Your task to perform on an android device: set default search engine in the chrome app Image 0: 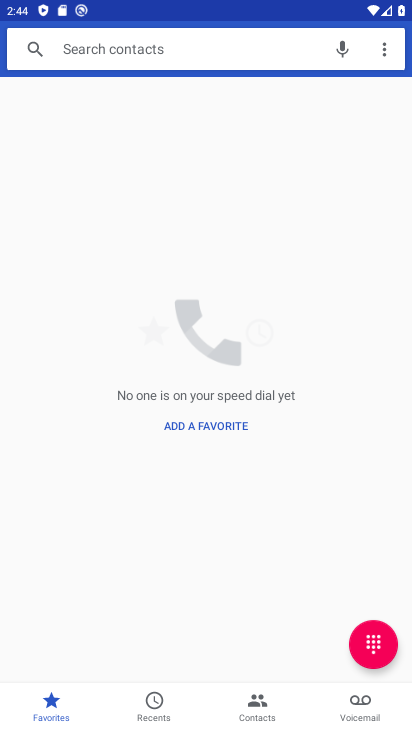
Step 0: drag from (276, 604) to (191, 77)
Your task to perform on an android device: set default search engine in the chrome app Image 1: 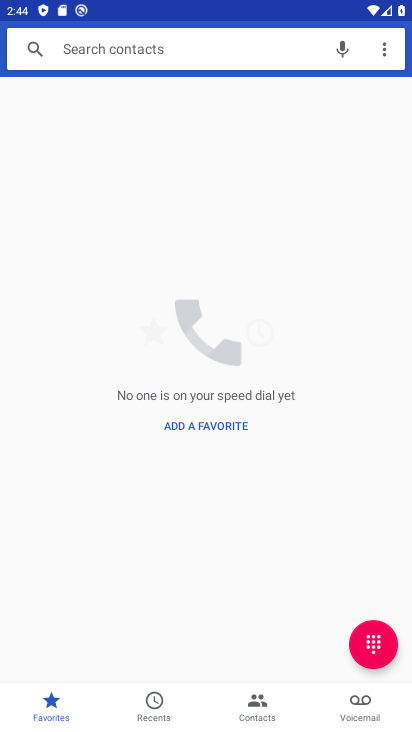
Step 1: press back button
Your task to perform on an android device: set default search engine in the chrome app Image 2: 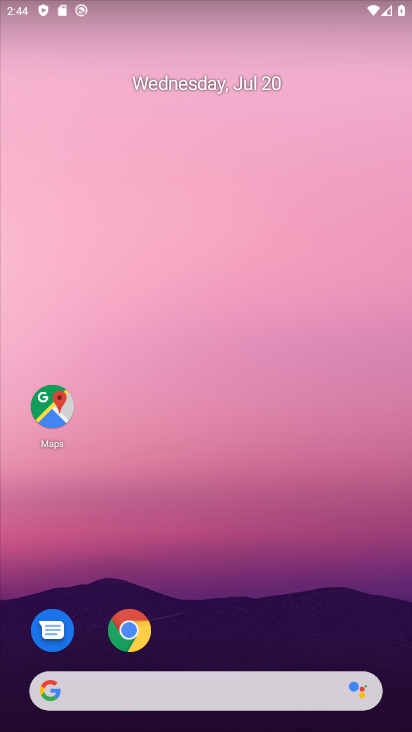
Step 2: drag from (282, 589) to (218, 200)
Your task to perform on an android device: set default search engine in the chrome app Image 3: 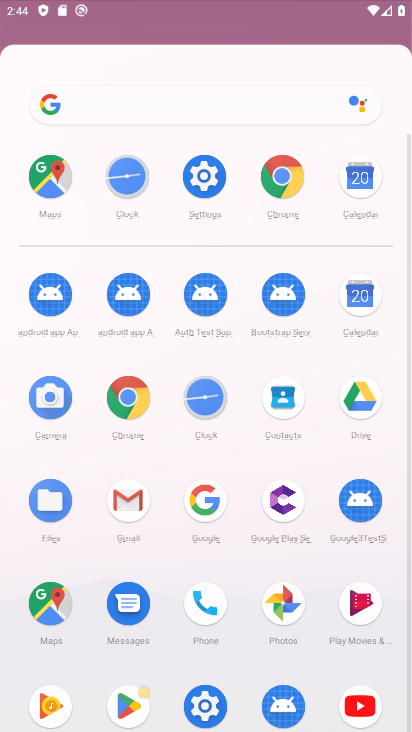
Step 3: drag from (247, 516) to (252, 103)
Your task to perform on an android device: set default search engine in the chrome app Image 4: 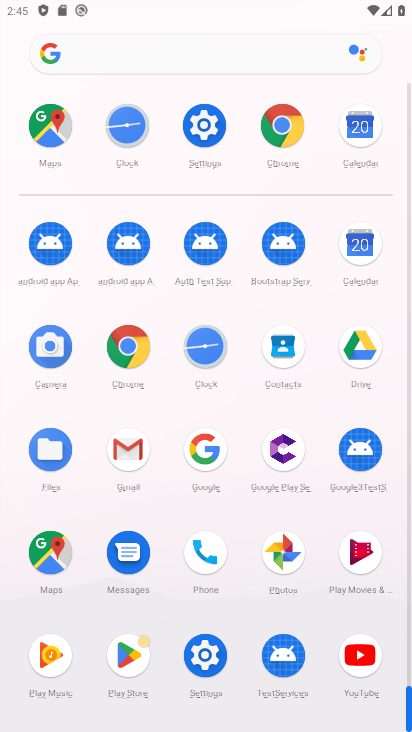
Step 4: click (284, 123)
Your task to perform on an android device: set default search engine in the chrome app Image 5: 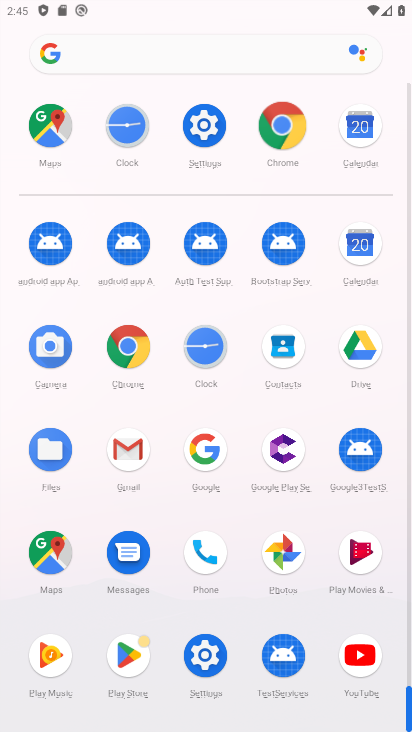
Step 5: click (284, 123)
Your task to perform on an android device: set default search engine in the chrome app Image 6: 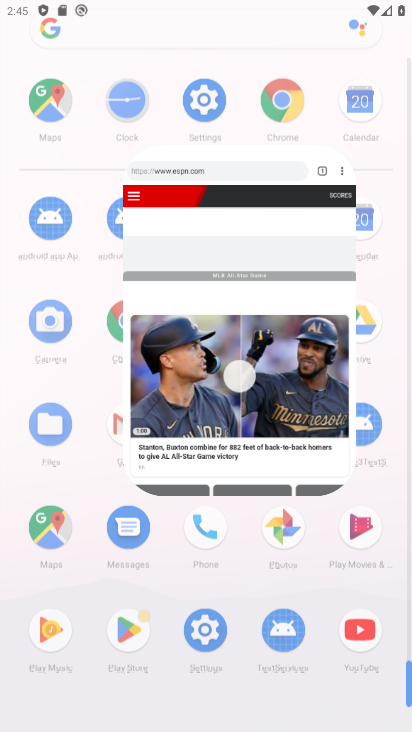
Step 6: click (285, 123)
Your task to perform on an android device: set default search engine in the chrome app Image 7: 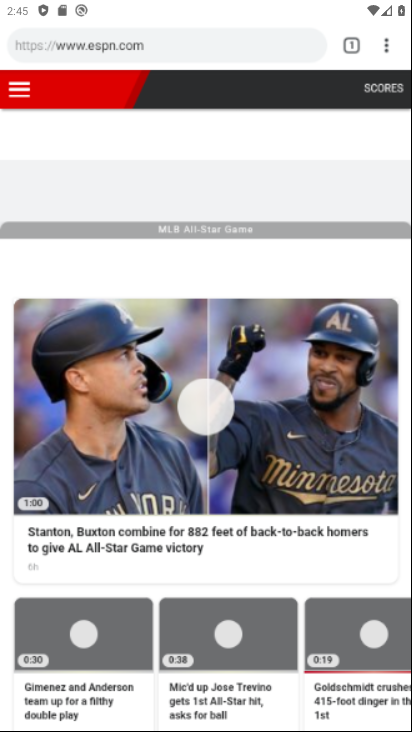
Step 7: click (285, 123)
Your task to perform on an android device: set default search engine in the chrome app Image 8: 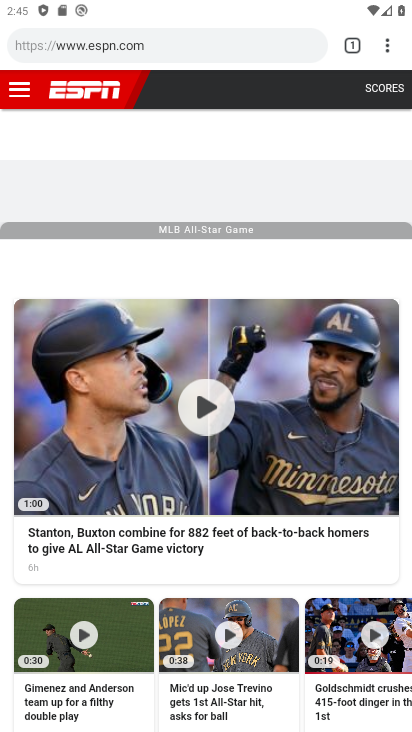
Step 8: drag from (393, 35) to (209, 545)
Your task to perform on an android device: set default search engine in the chrome app Image 9: 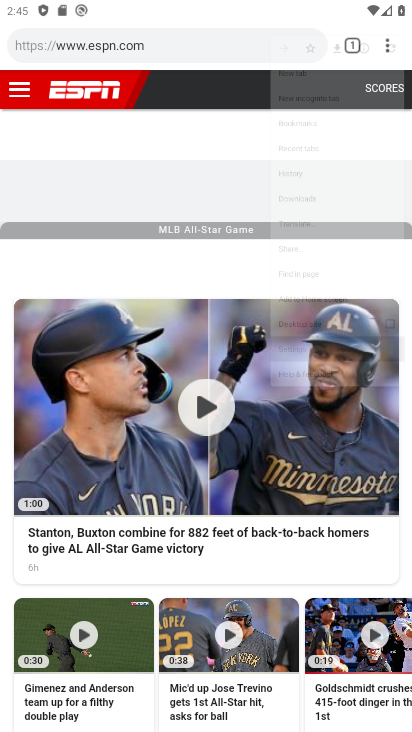
Step 9: click (211, 544)
Your task to perform on an android device: set default search engine in the chrome app Image 10: 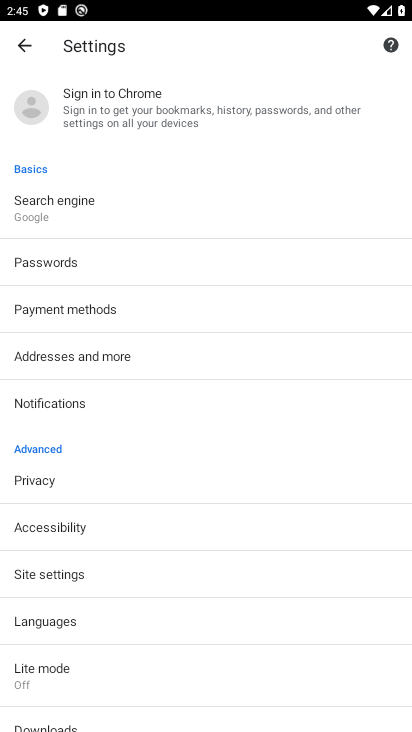
Step 10: click (34, 202)
Your task to perform on an android device: set default search engine in the chrome app Image 11: 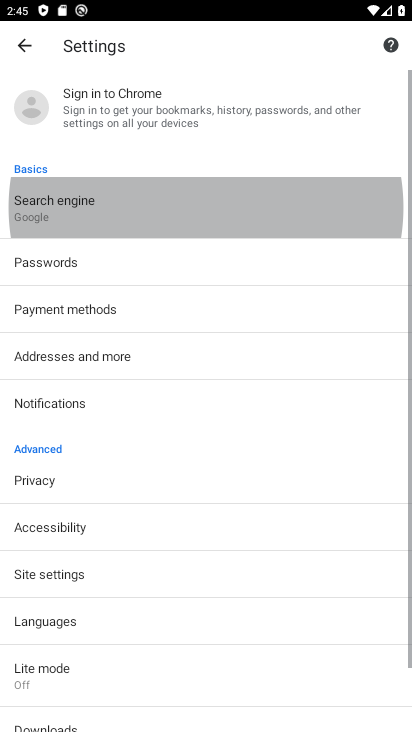
Step 11: click (34, 202)
Your task to perform on an android device: set default search engine in the chrome app Image 12: 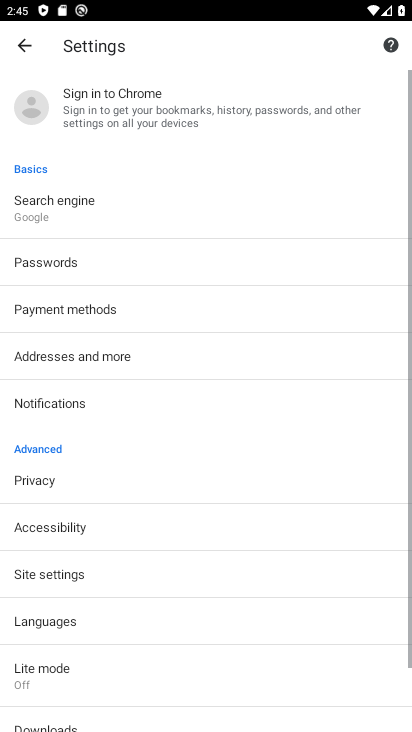
Step 12: click (34, 202)
Your task to perform on an android device: set default search engine in the chrome app Image 13: 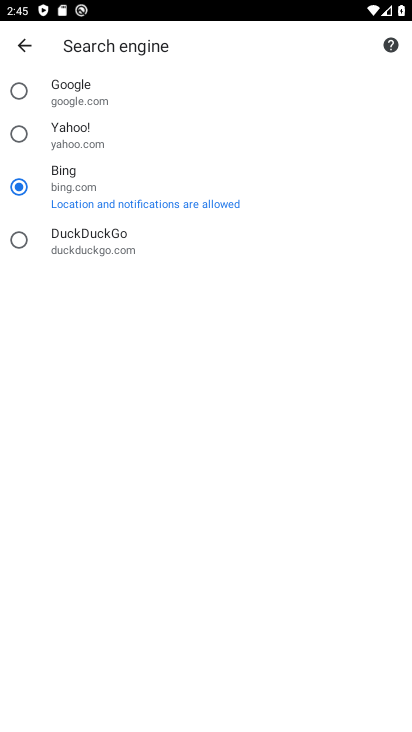
Step 13: task complete